Your task to perform on an android device: Is it going to rain this weekend? Image 0: 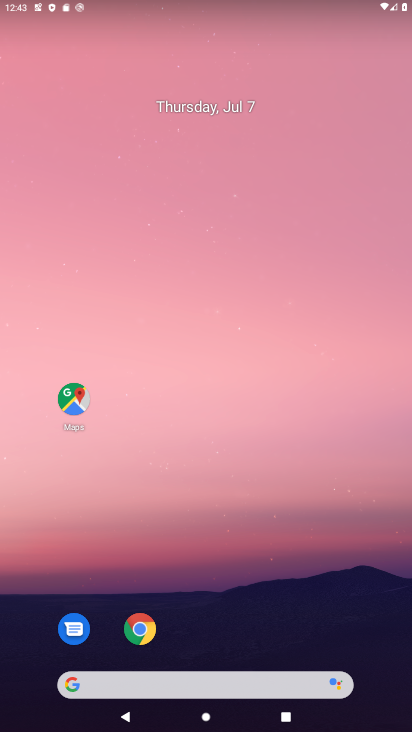
Step 0: drag from (256, 566) to (268, 83)
Your task to perform on an android device: Is it going to rain this weekend? Image 1: 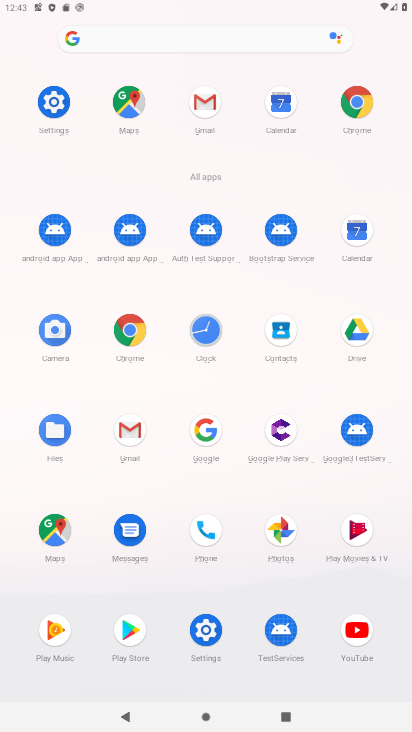
Step 1: click (205, 429)
Your task to perform on an android device: Is it going to rain this weekend? Image 2: 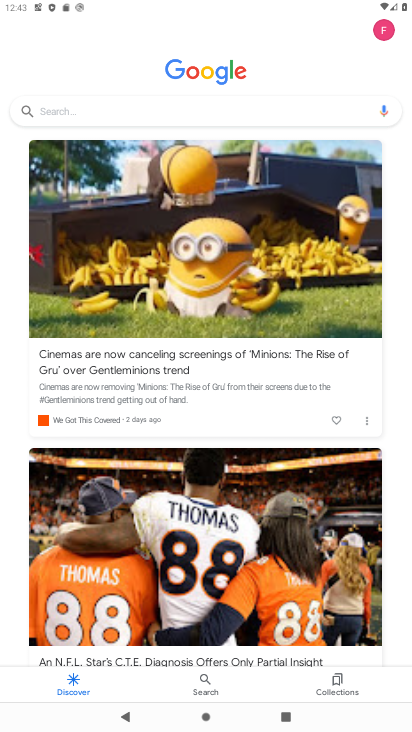
Step 2: click (242, 114)
Your task to perform on an android device: Is it going to rain this weekend? Image 3: 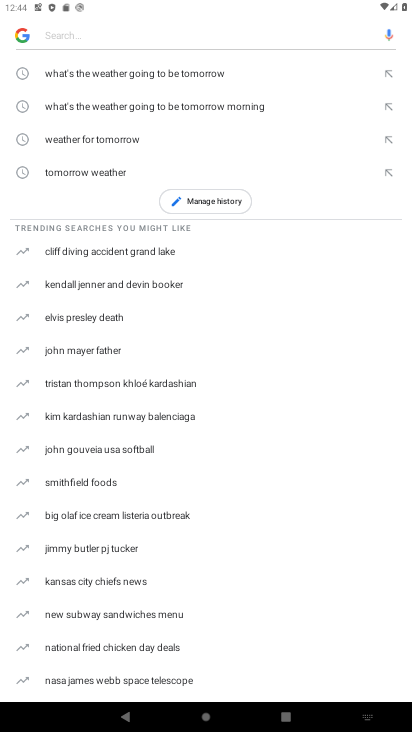
Step 3: type "Is it going to rain this weekend?"
Your task to perform on an android device: Is it going to rain this weekend? Image 4: 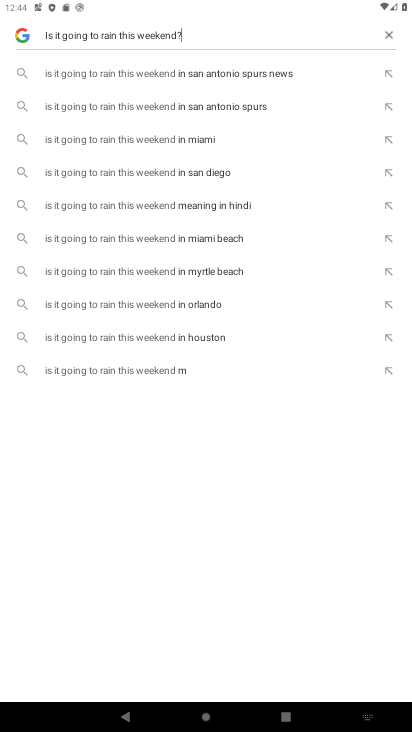
Step 4: click (170, 70)
Your task to perform on an android device: Is it going to rain this weekend? Image 5: 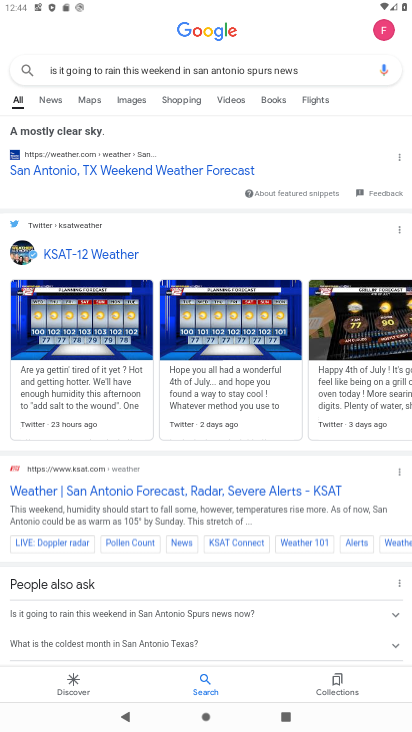
Step 5: click (183, 173)
Your task to perform on an android device: Is it going to rain this weekend? Image 6: 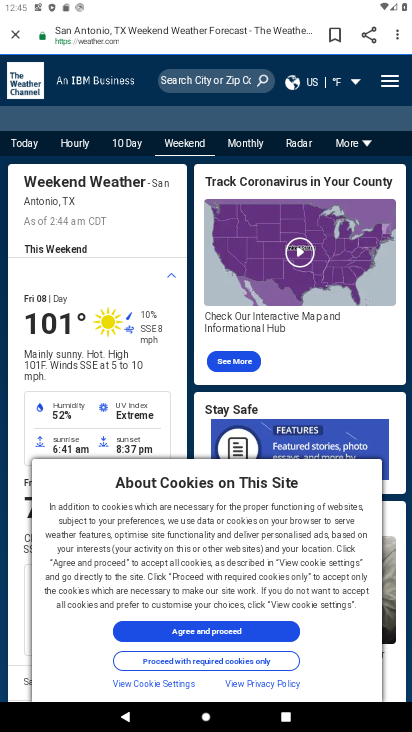
Step 6: task complete